Your task to perform on an android device: Open privacy settings Image 0: 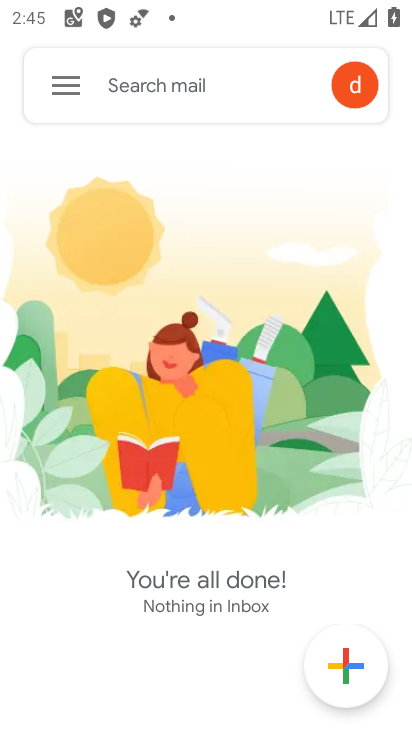
Step 0: press back button
Your task to perform on an android device: Open privacy settings Image 1: 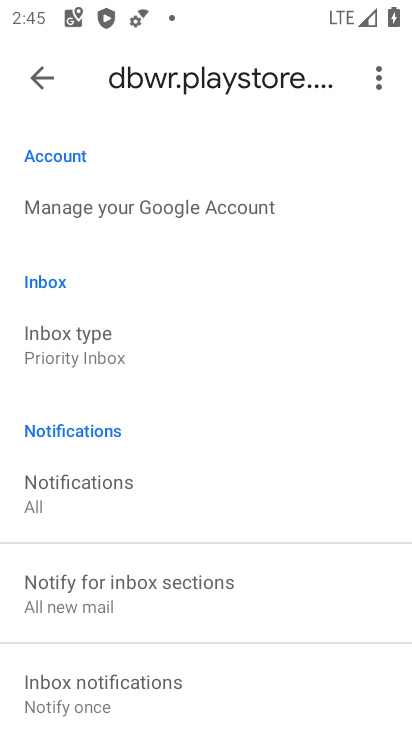
Step 1: press back button
Your task to perform on an android device: Open privacy settings Image 2: 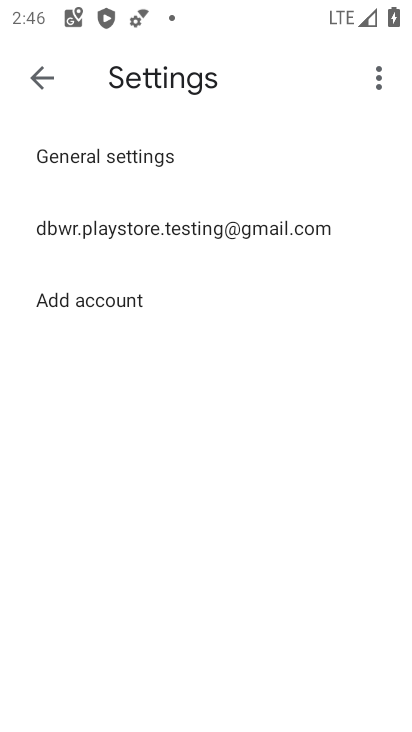
Step 2: press back button
Your task to perform on an android device: Open privacy settings Image 3: 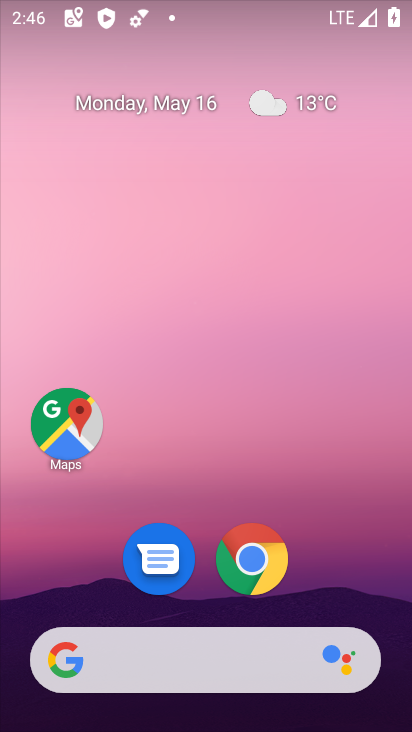
Step 3: drag from (190, 606) to (328, 88)
Your task to perform on an android device: Open privacy settings Image 4: 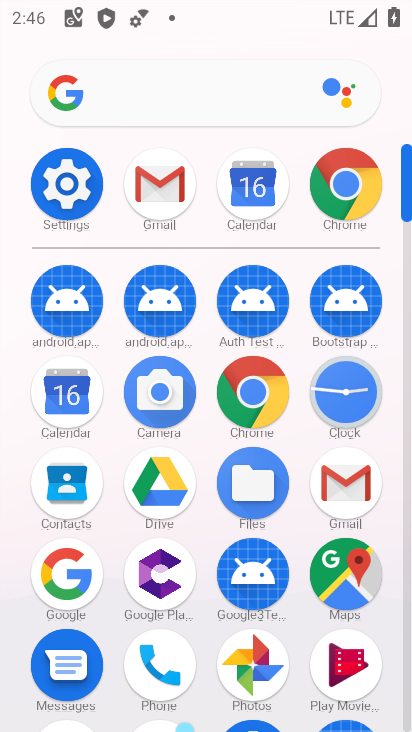
Step 4: click (67, 200)
Your task to perform on an android device: Open privacy settings Image 5: 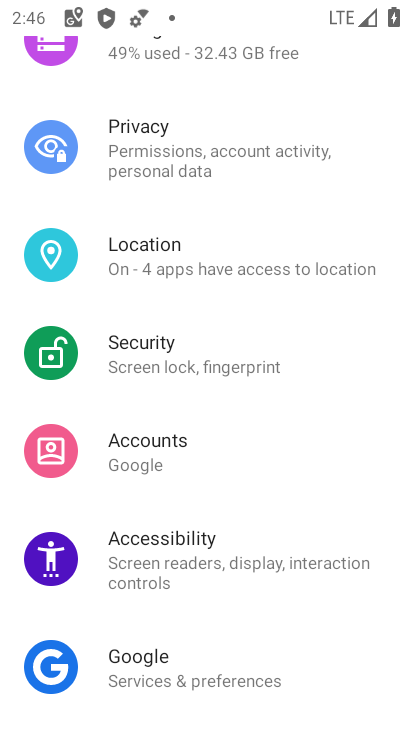
Step 5: click (167, 148)
Your task to perform on an android device: Open privacy settings Image 6: 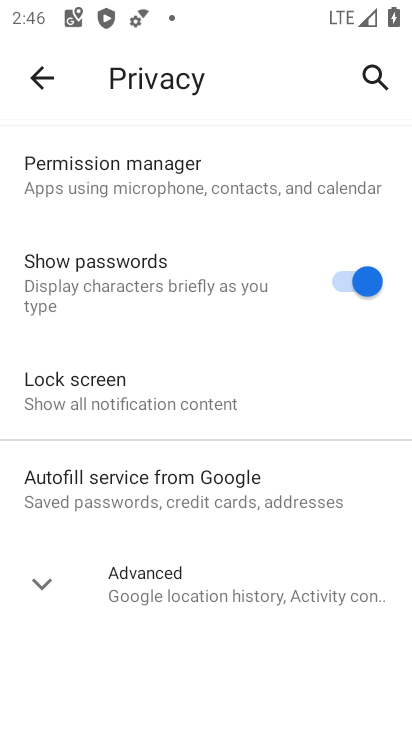
Step 6: task complete